Your task to perform on an android device: install app "Indeed Job Search" Image 0: 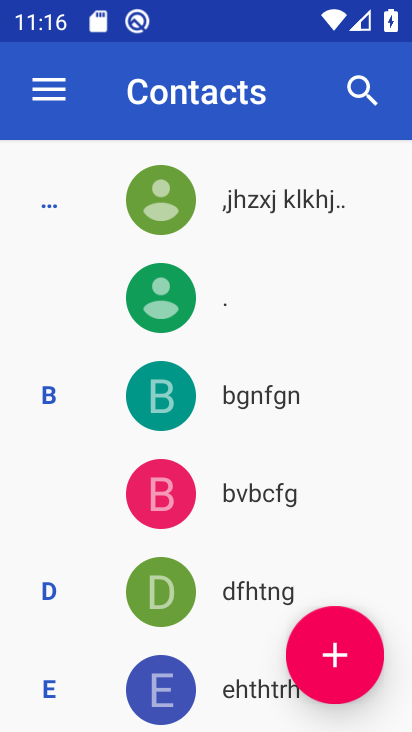
Step 0: press home button
Your task to perform on an android device: install app "Indeed Job Search" Image 1: 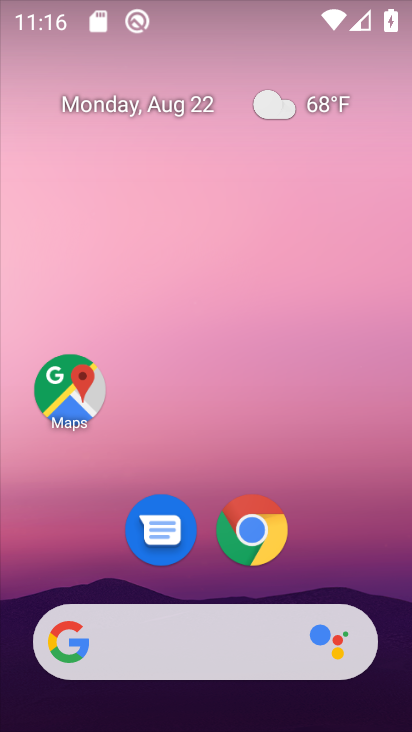
Step 1: drag from (152, 628) to (260, 0)
Your task to perform on an android device: install app "Indeed Job Search" Image 2: 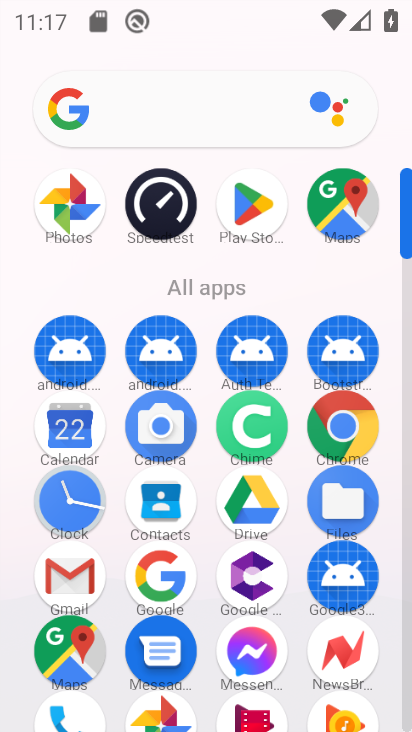
Step 2: click (255, 209)
Your task to perform on an android device: install app "Indeed Job Search" Image 3: 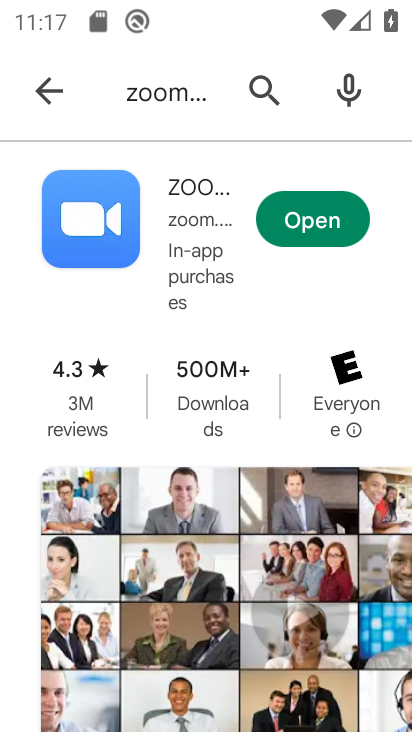
Step 3: press back button
Your task to perform on an android device: install app "Indeed Job Search" Image 4: 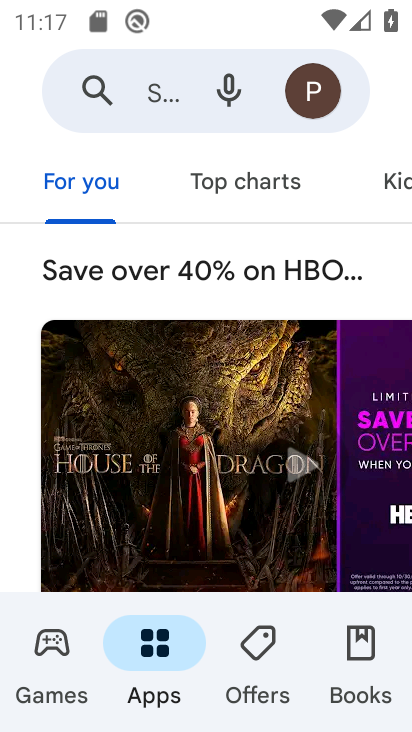
Step 4: click (154, 99)
Your task to perform on an android device: install app "Indeed Job Search" Image 5: 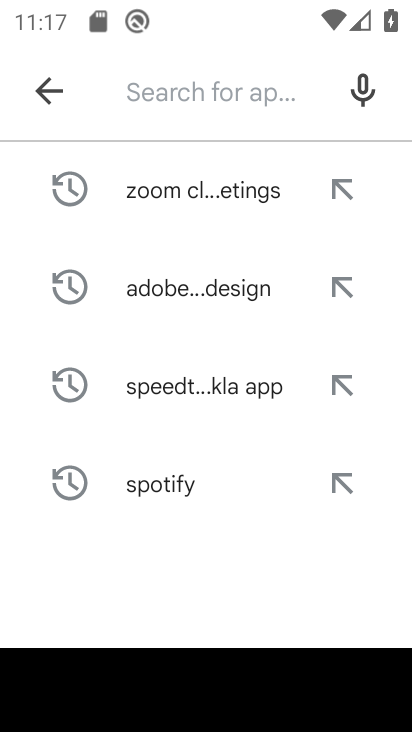
Step 5: type "Indeed Job Search"
Your task to perform on an android device: install app "Indeed Job Search" Image 6: 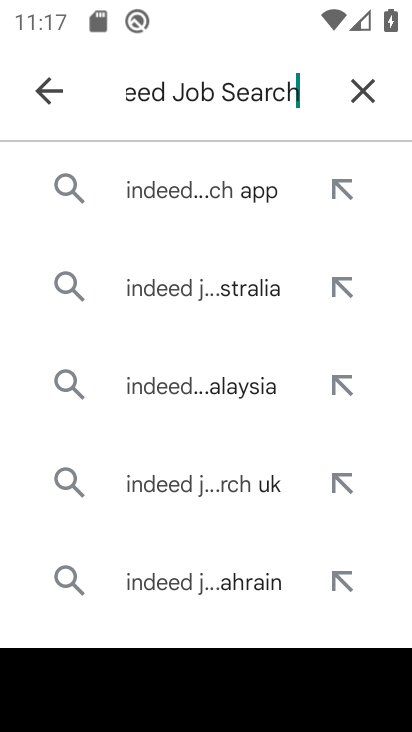
Step 6: click (254, 190)
Your task to perform on an android device: install app "Indeed Job Search" Image 7: 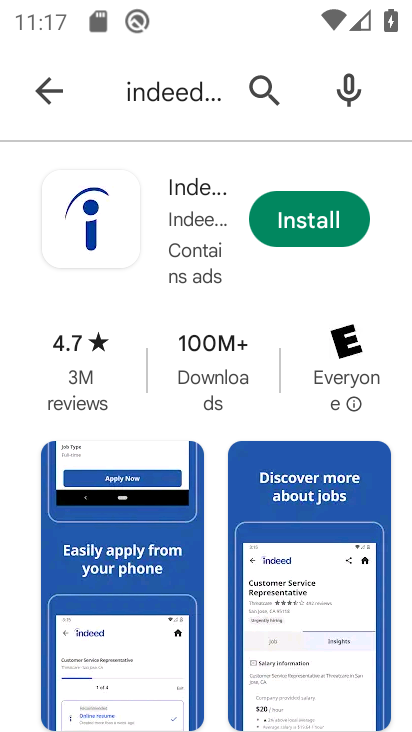
Step 7: click (269, 227)
Your task to perform on an android device: install app "Indeed Job Search" Image 8: 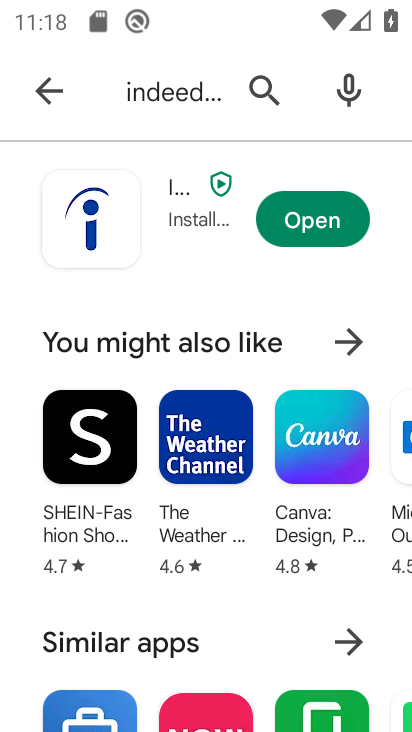
Step 8: task complete